Your task to perform on an android device: star an email in the gmail app Image 0: 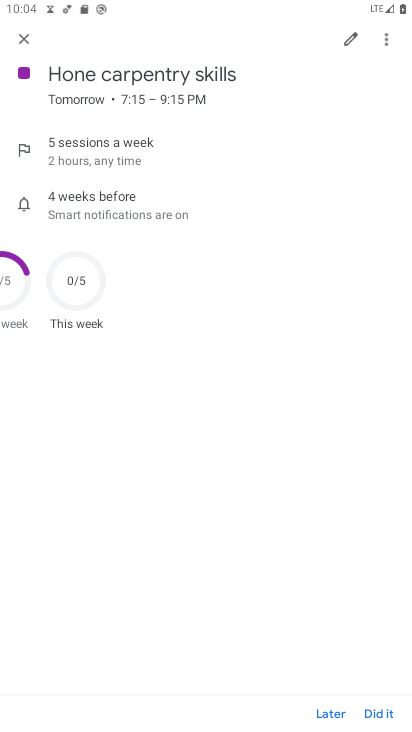
Step 0: press home button
Your task to perform on an android device: star an email in the gmail app Image 1: 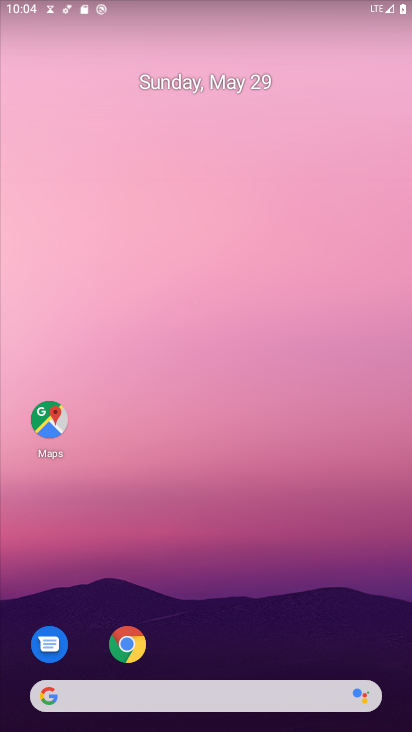
Step 1: drag from (147, 725) to (182, 39)
Your task to perform on an android device: star an email in the gmail app Image 2: 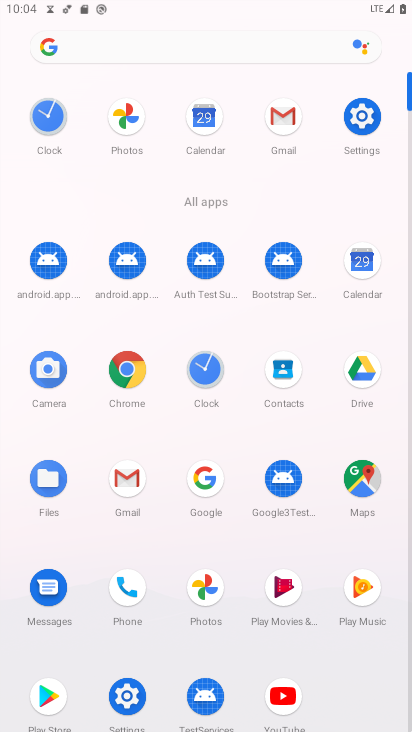
Step 2: click (288, 122)
Your task to perform on an android device: star an email in the gmail app Image 3: 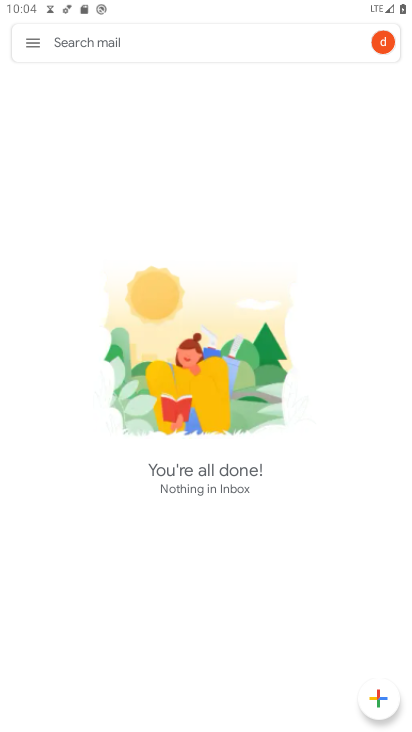
Step 3: click (28, 44)
Your task to perform on an android device: star an email in the gmail app Image 4: 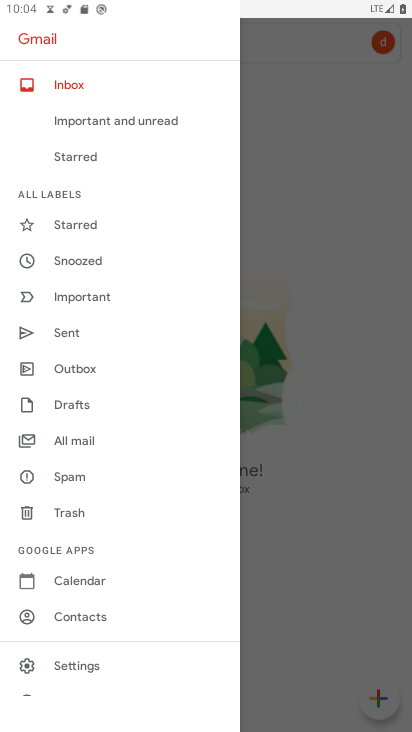
Step 4: click (69, 445)
Your task to perform on an android device: star an email in the gmail app Image 5: 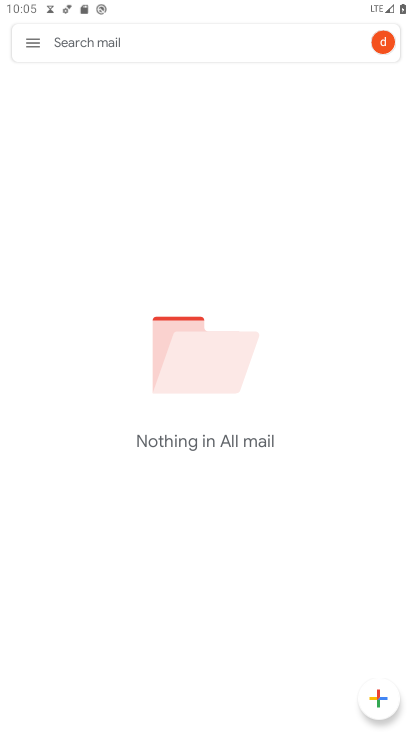
Step 5: task complete